Your task to perform on an android device: find which apps use the phone's location Image 0: 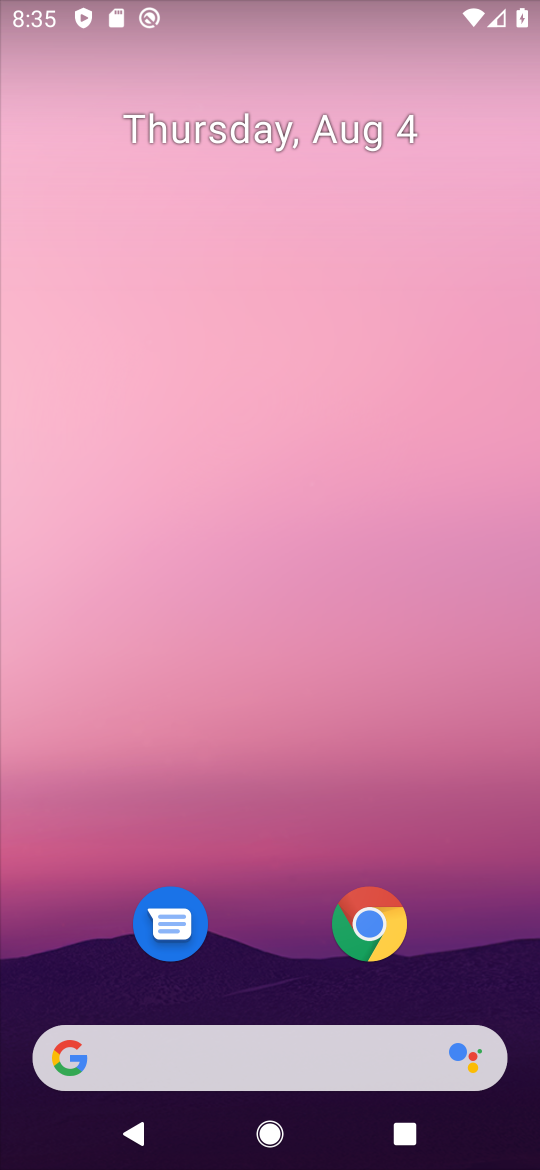
Step 0: press back button
Your task to perform on an android device: find which apps use the phone's location Image 1: 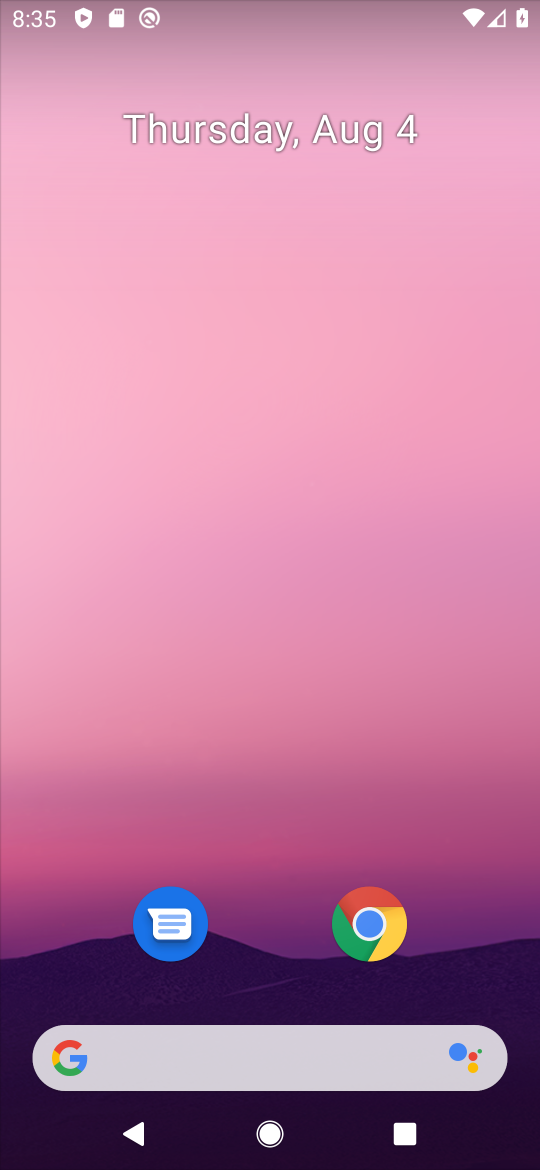
Step 1: drag from (284, 988) to (279, 0)
Your task to perform on an android device: find which apps use the phone's location Image 2: 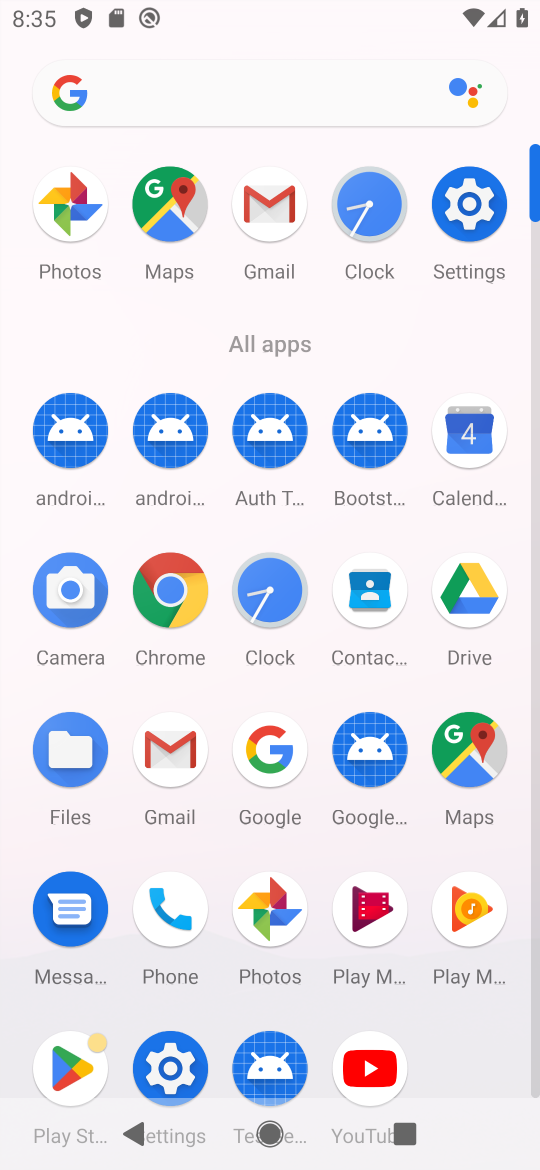
Step 2: click (459, 204)
Your task to perform on an android device: find which apps use the phone's location Image 3: 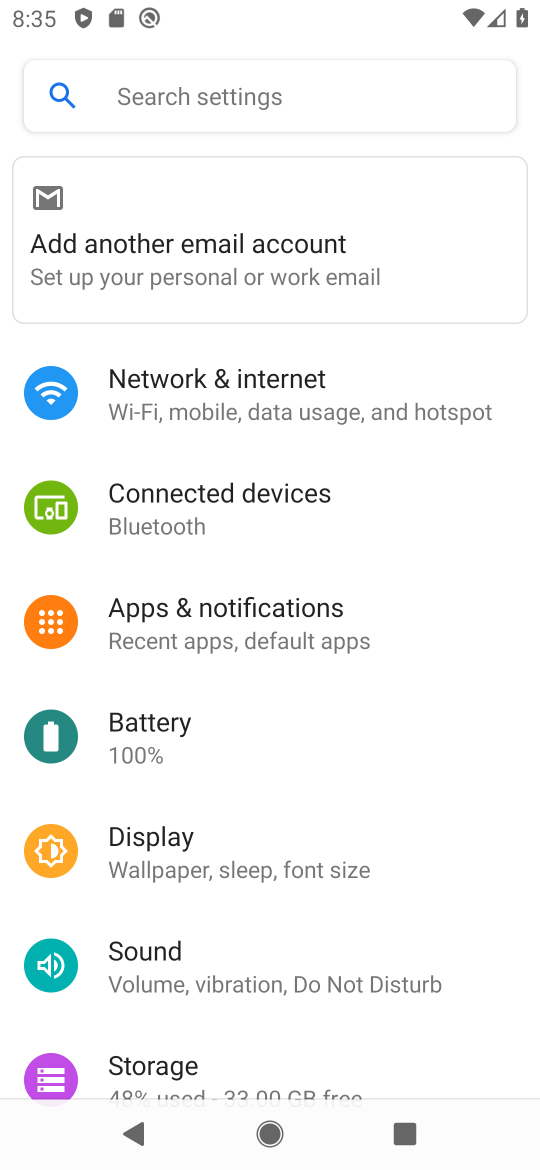
Step 3: drag from (331, 1008) to (323, 489)
Your task to perform on an android device: find which apps use the phone's location Image 4: 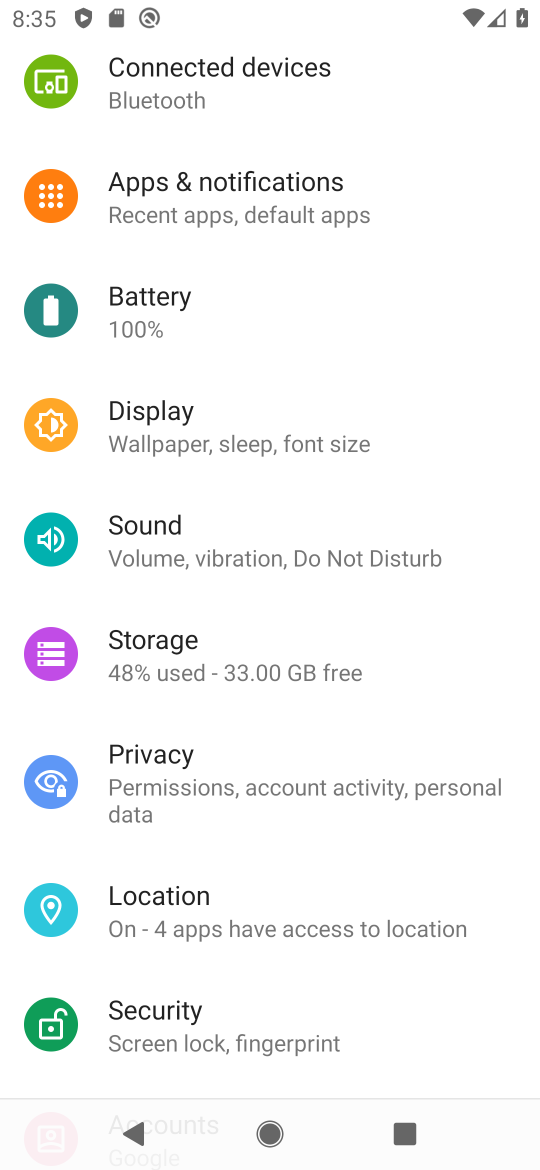
Step 4: click (251, 949)
Your task to perform on an android device: find which apps use the phone's location Image 5: 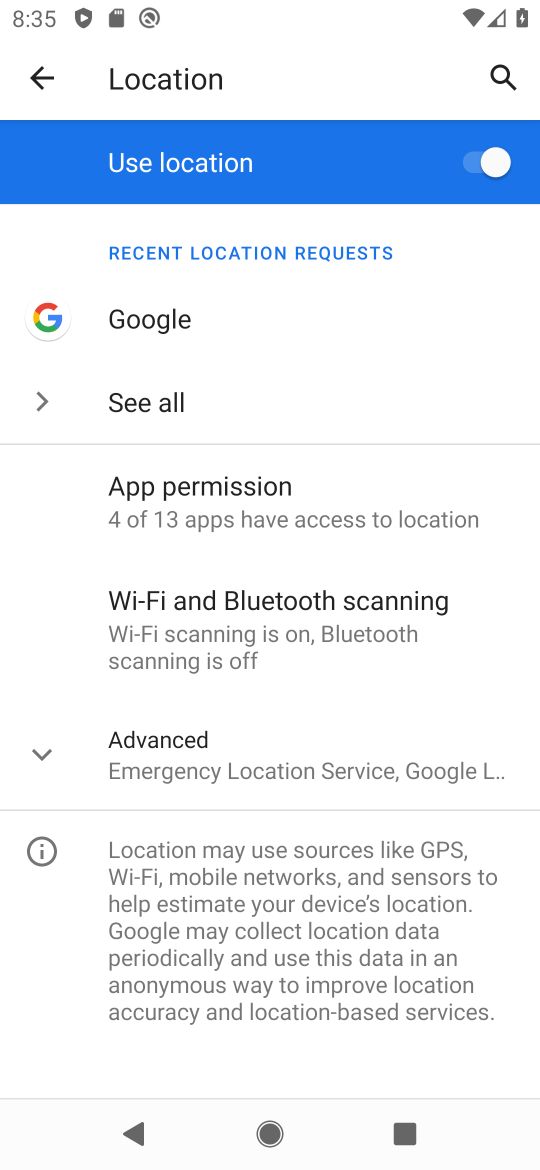
Step 5: click (198, 744)
Your task to perform on an android device: find which apps use the phone's location Image 6: 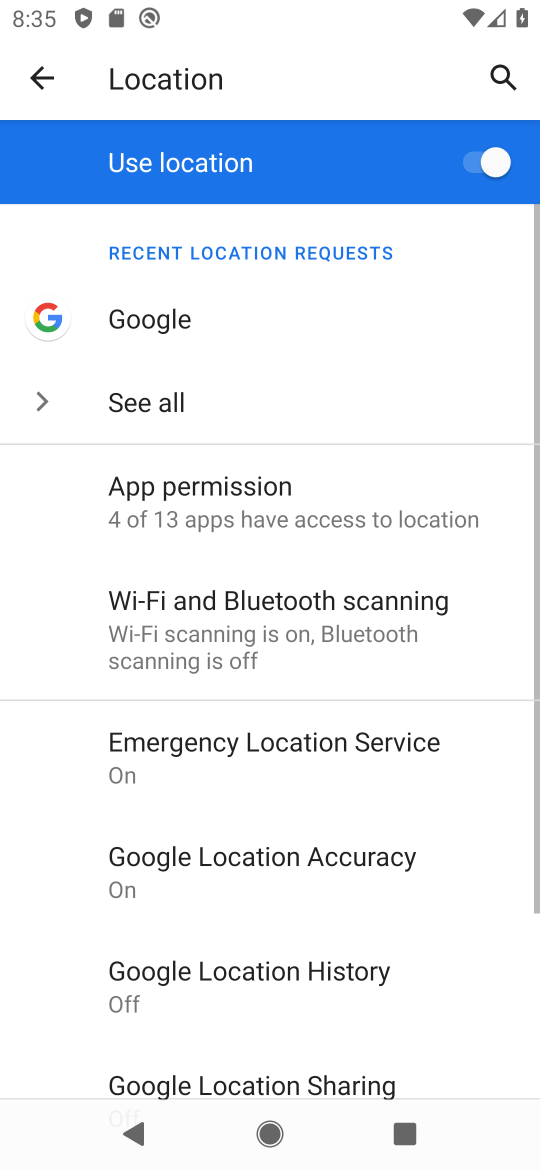
Step 6: click (172, 503)
Your task to perform on an android device: find which apps use the phone's location Image 7: 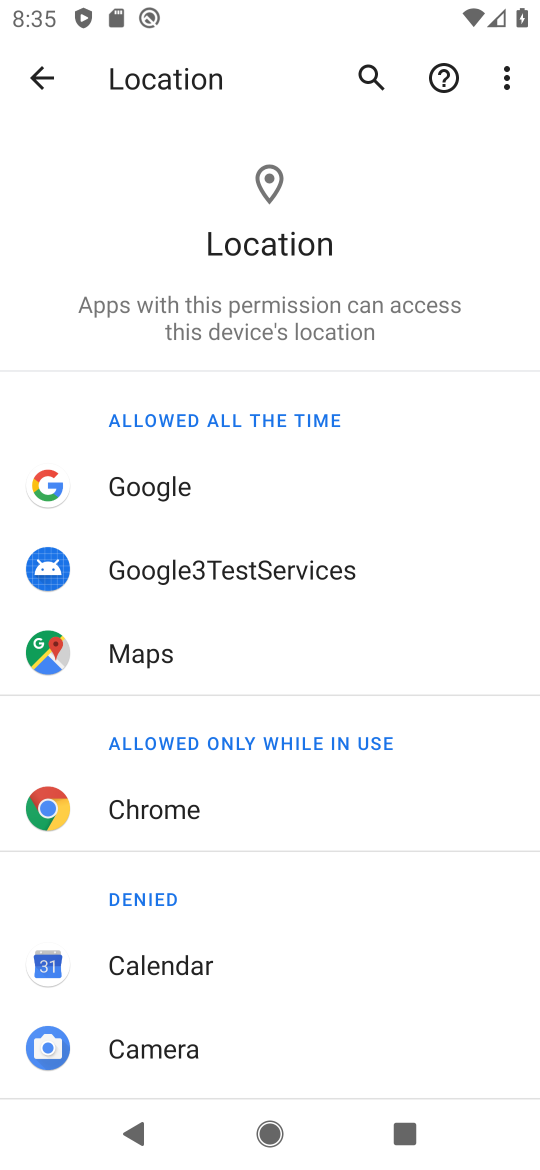
Step 7: task complete